Your task to perform on an android device: allow cookies in the chrome app Image 0: 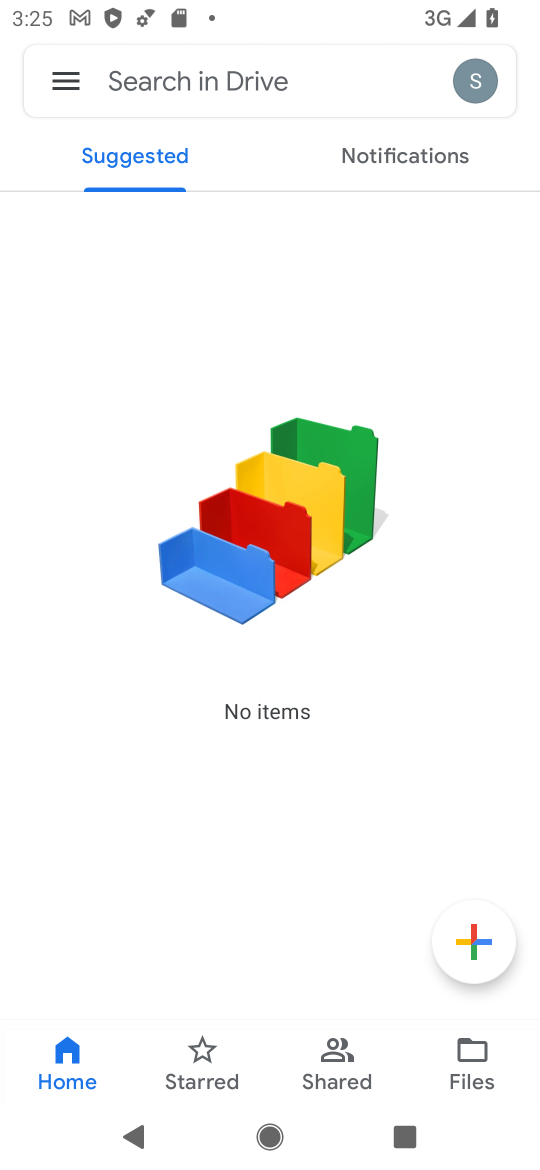
Step 0: press home button
Your task to perform on an android device: allow cookies in the chrome app Image 1: 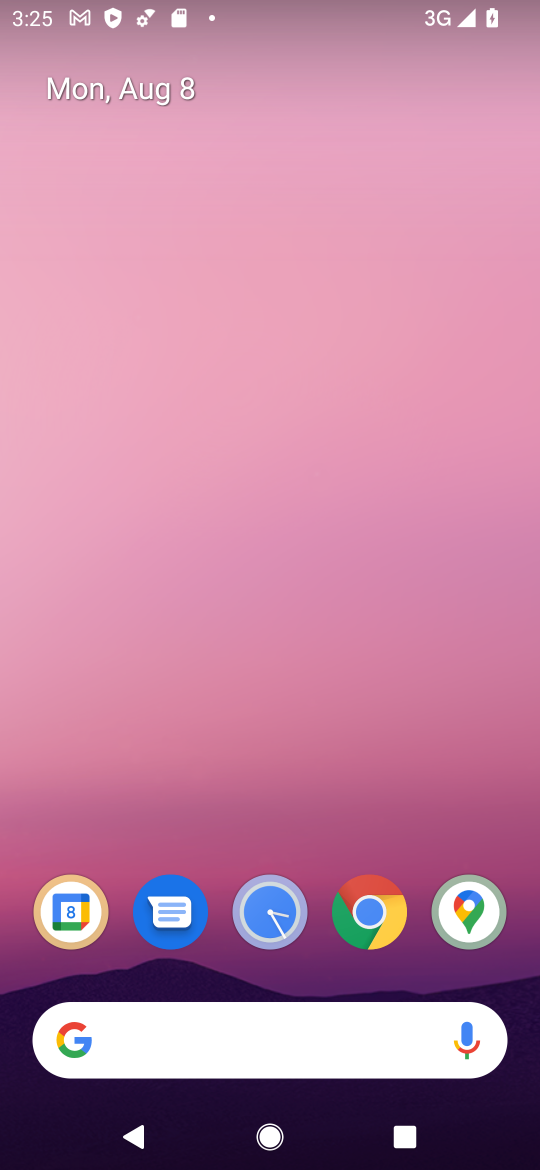
Step 1: click (364, 915)
Your task to perform on an android device: allow cookies in the chrome app Image 2: 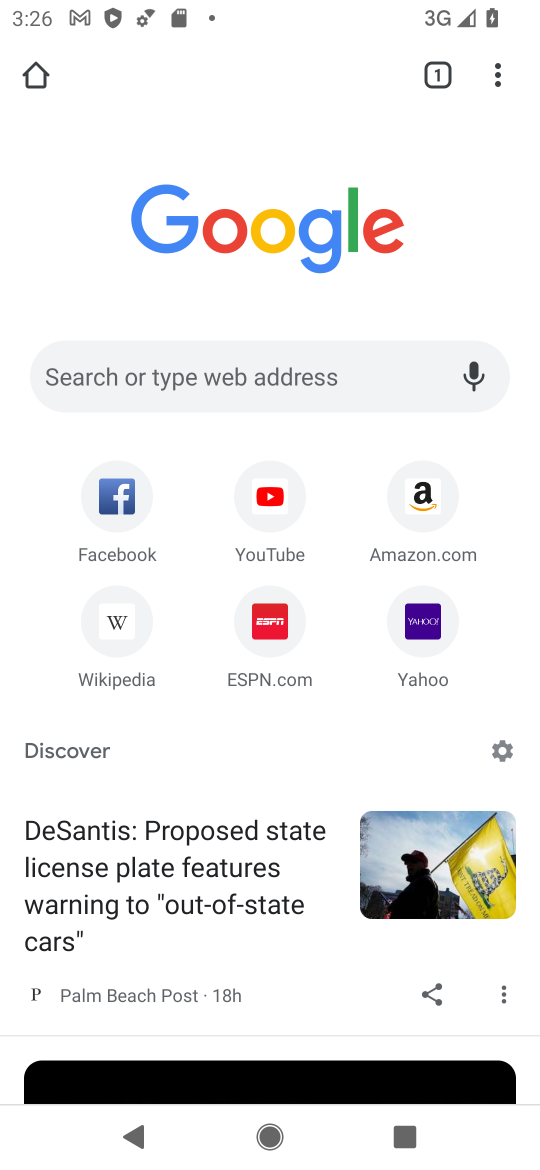
Step 2: click (501, 88)
Your task to perform on an android device: allow cookies in the chrome app Image 3: 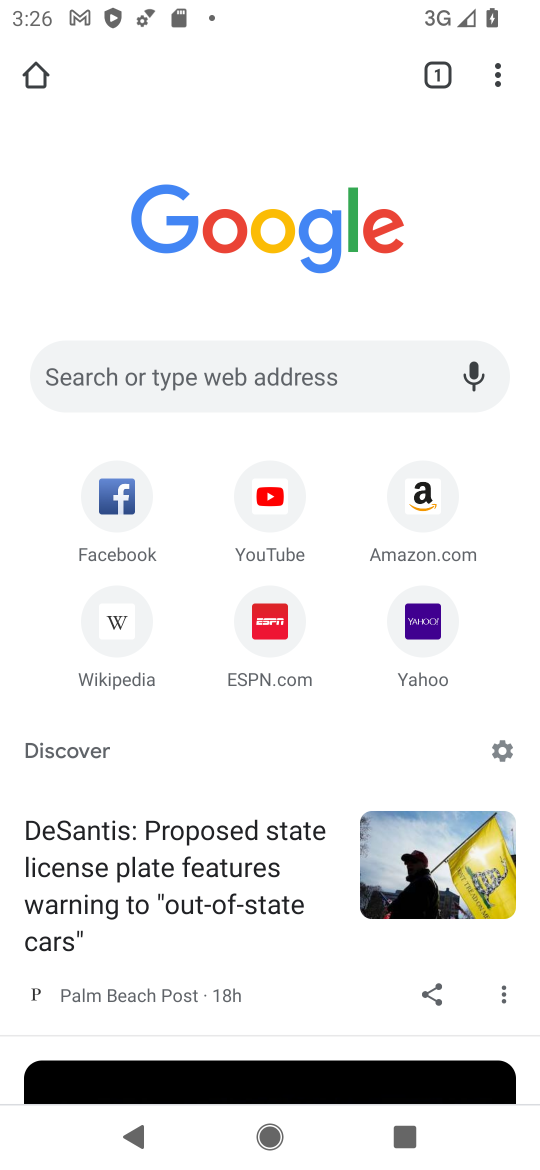
Step 3: click (492, 73)
Your task to perform on an android device: allow cookies in the chrome app Image 4: 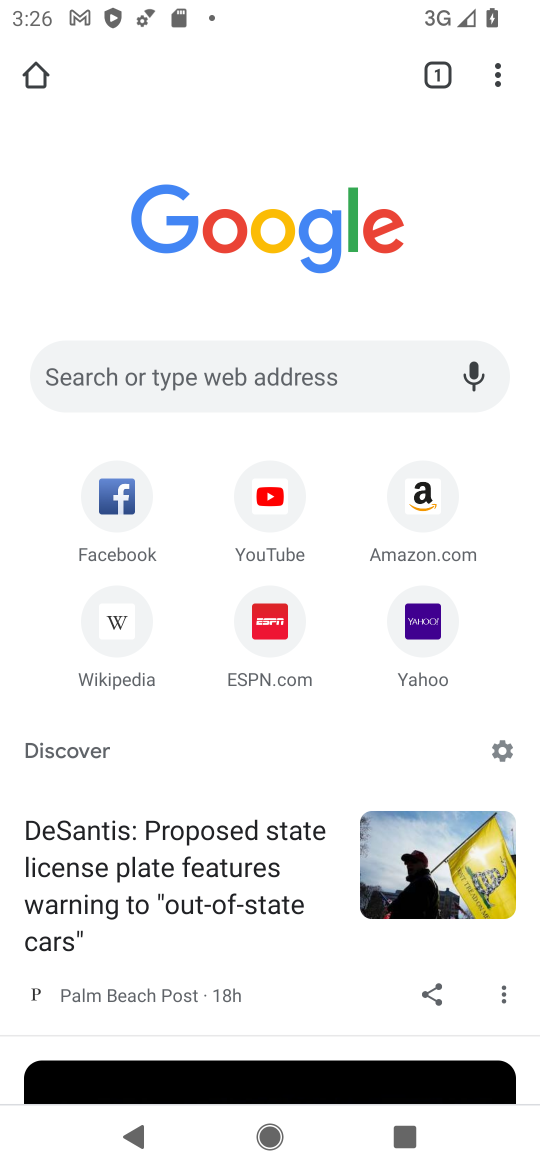
Step 4: click (497, 74)
Your task to perform on an android device: allow cookies in the chrome app Image 5: 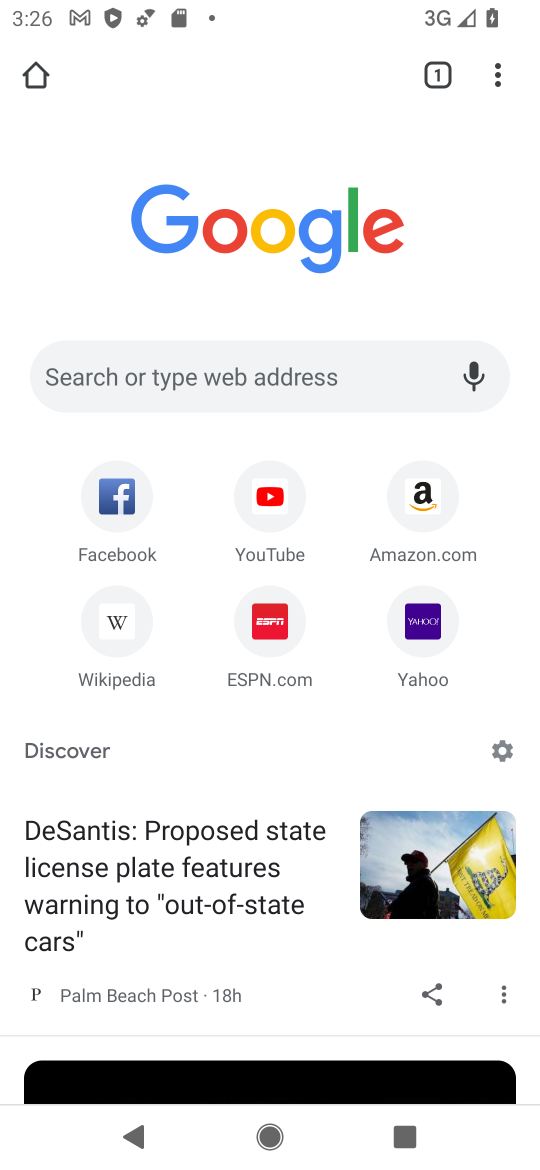
Step 5: click (496, 83)
Your task to perform on an android device: allow cookies in the chrome app Image 6: 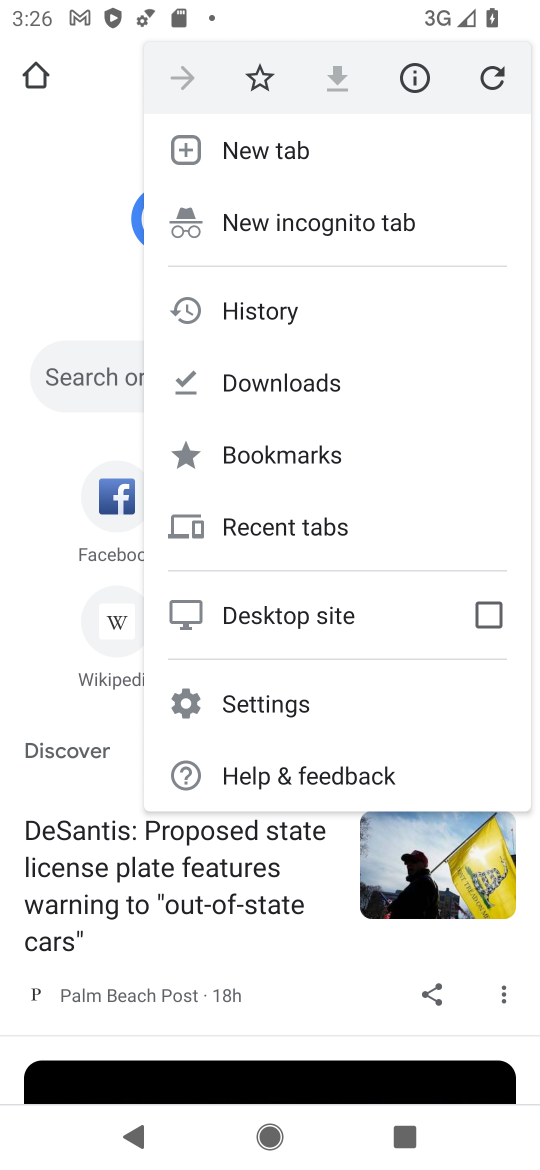
Step 6: click (235, 696)
Your task to perform on an android device: allow cookies in the chrome app Image 7: 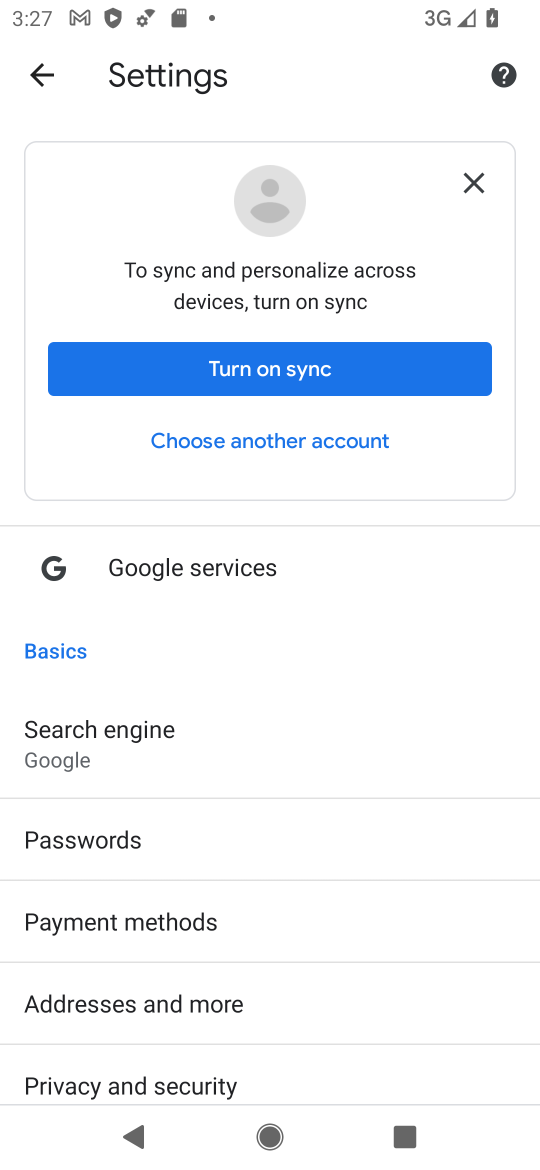
Step 7: drag from (55, 838) to (288, 131)
Your task to perform on an android device: allow cookies in the chrome app Image 8: 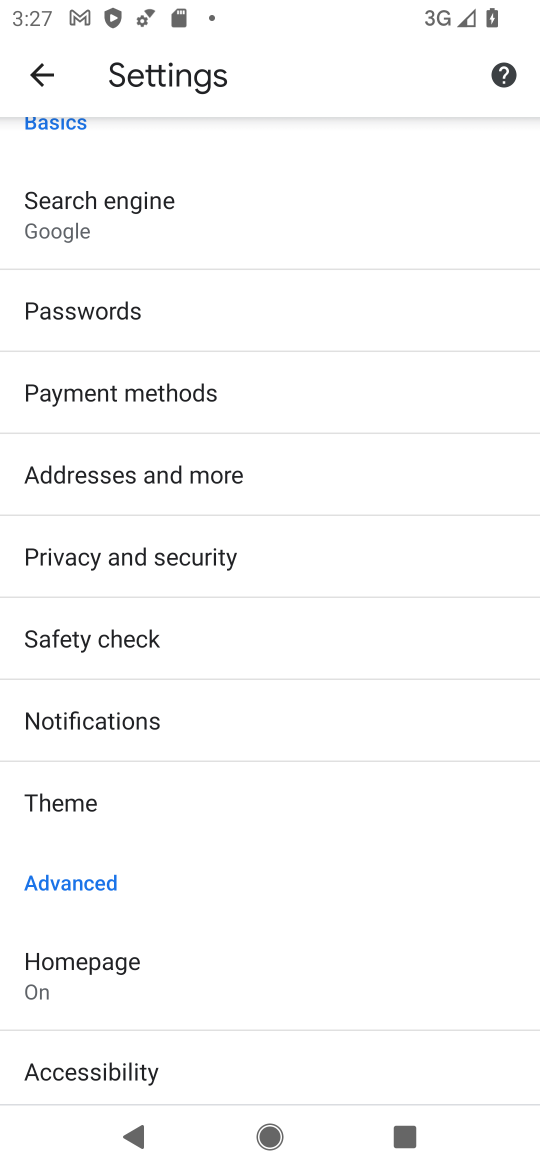
Step 8: drag from (57, 754) to (298, 164)
Your task to perform on an android device: allow cookies in the chrome app Image 9: 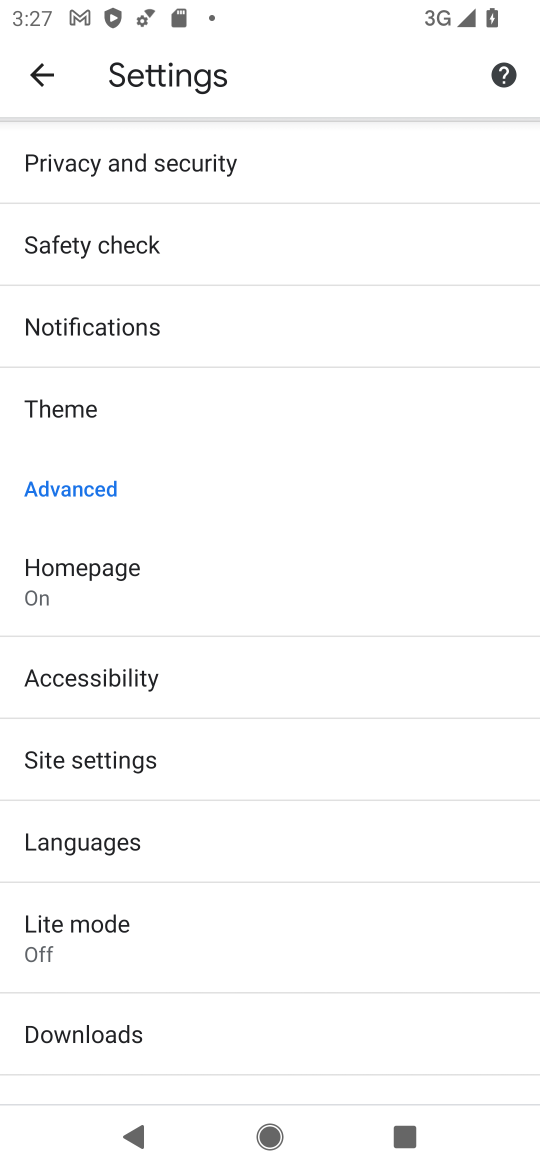
Step 9: click (132, 777)
Your task to perform on an android device: allow cookies in the chrome app Image 10: 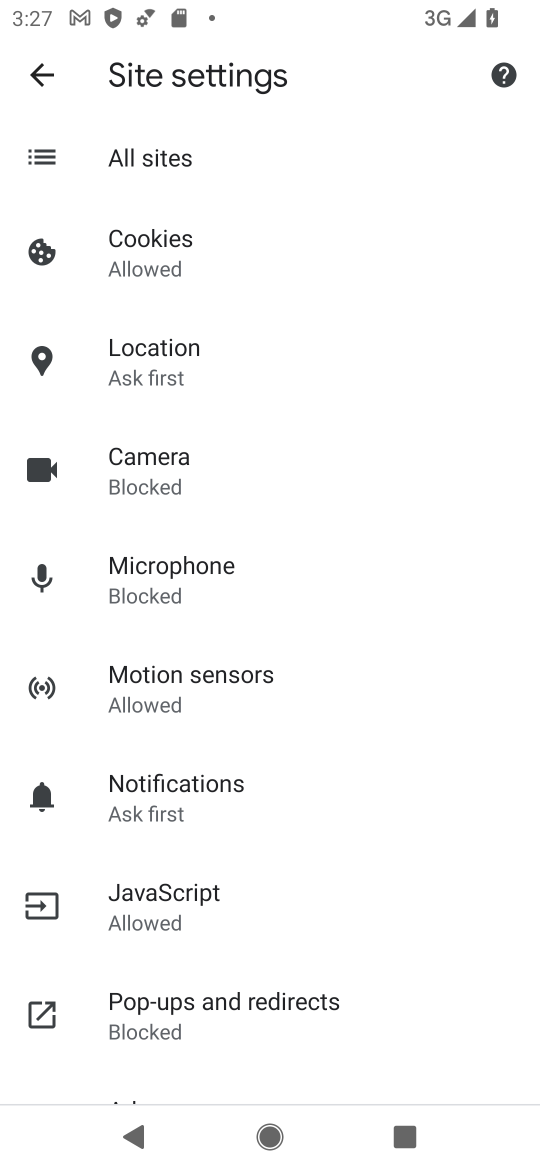
Step 10: click (215, 242)
Your task to perform on an android device: allow cookies in the chrome app Image 11: 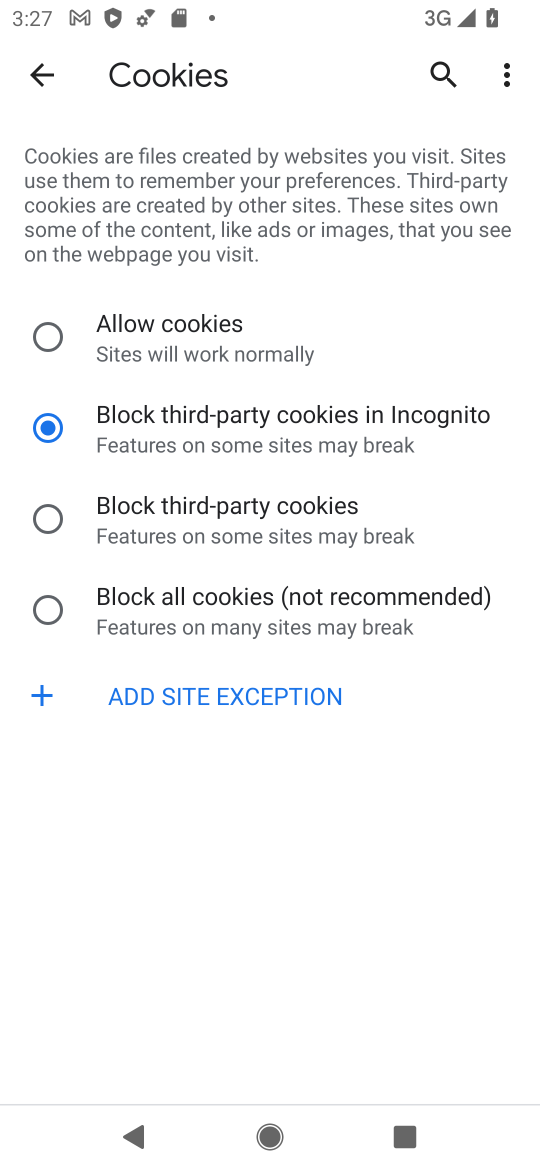
Step 11: click (64, 340)
Your task to perform on an android device: allow cookies in the chrome app Image 12: 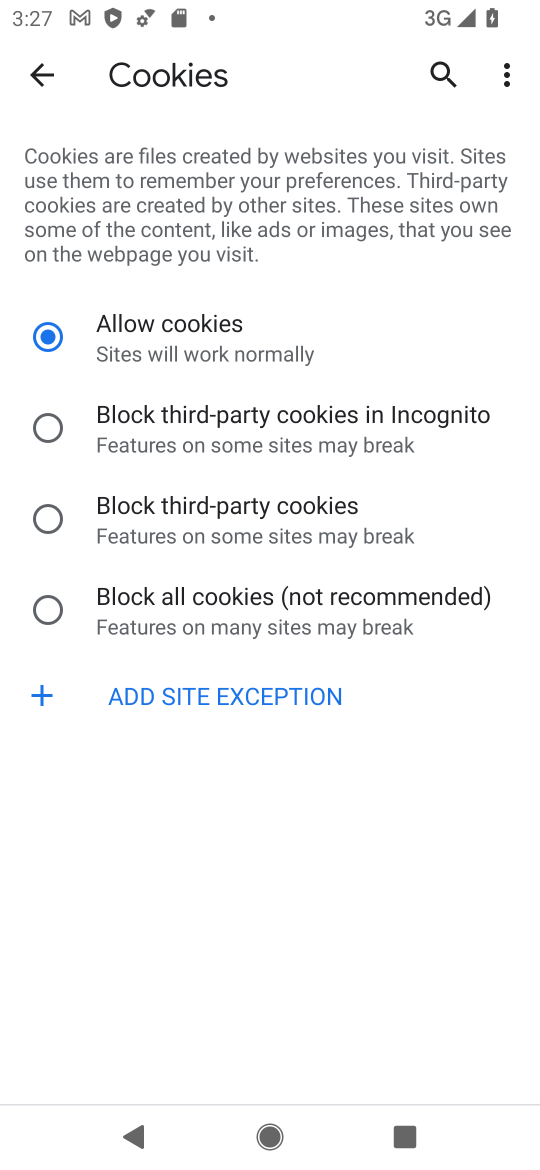
Step 12: task complete